Your task to perform on an android device: Turn off the flashlight Image 0: 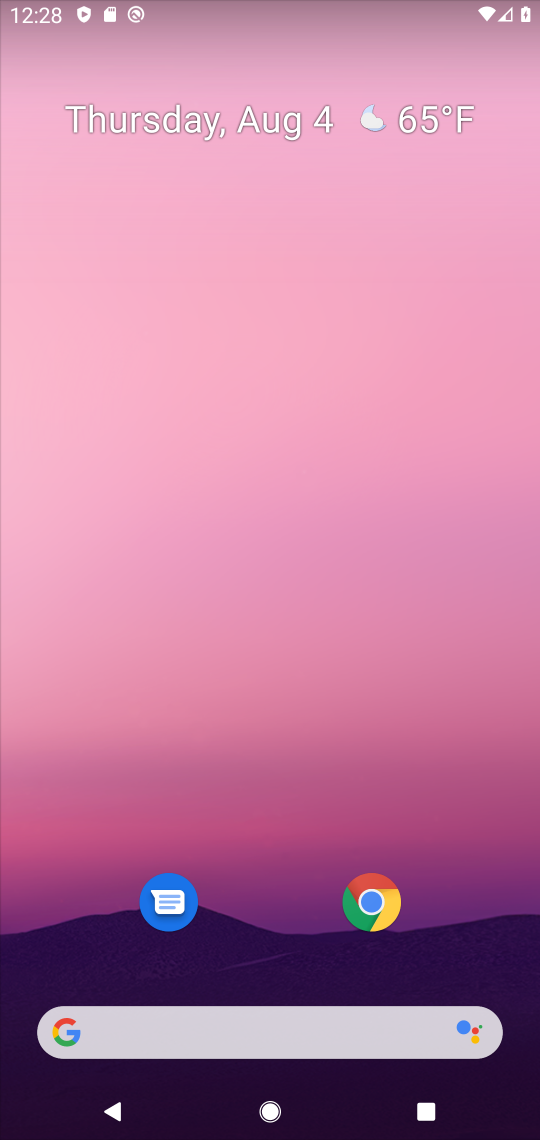
Step 0: drag from (292, 13) to (277, 871)
Your task to perform on an android device: Turn off the flashlight Image 1: 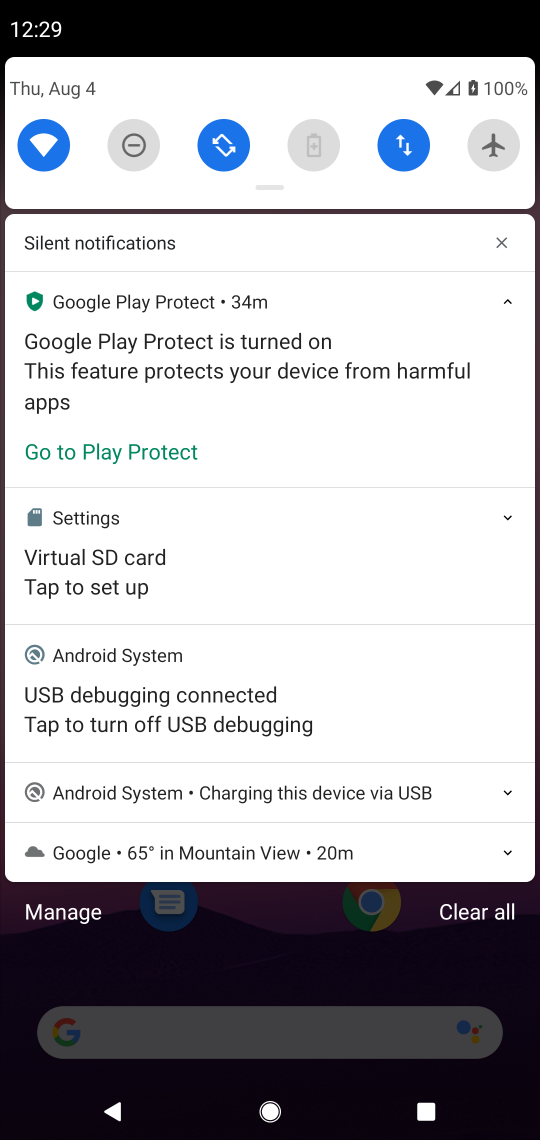
Step 1: drag from (267, 189) to (283, 634)
Your task to perform on an android device: Turn off the flashlight Image 2: 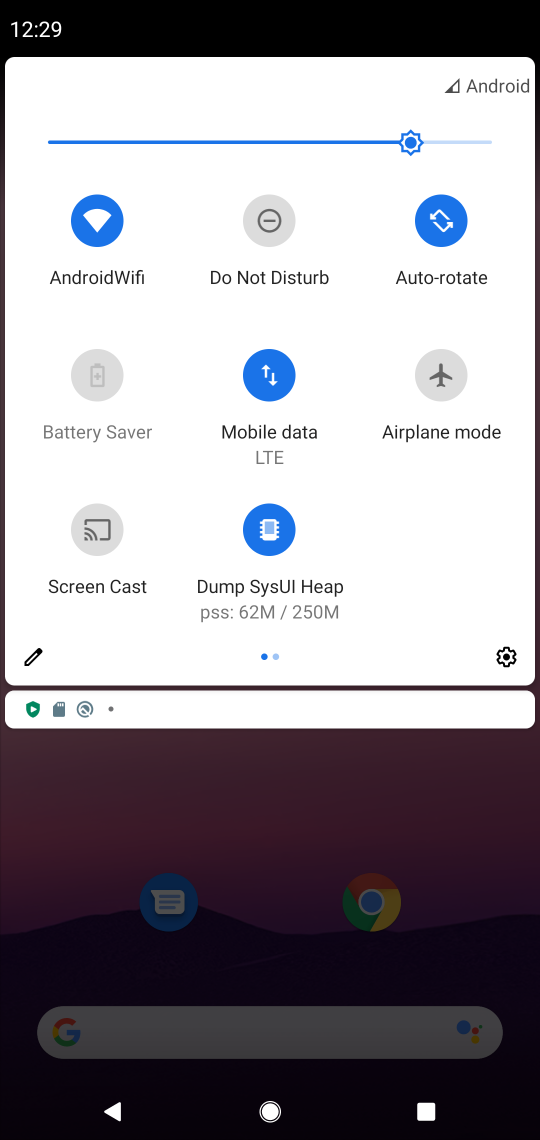
Step 2: click (26, 656)
Your task to perform on an android device: Turn off the flashlight Image 3: 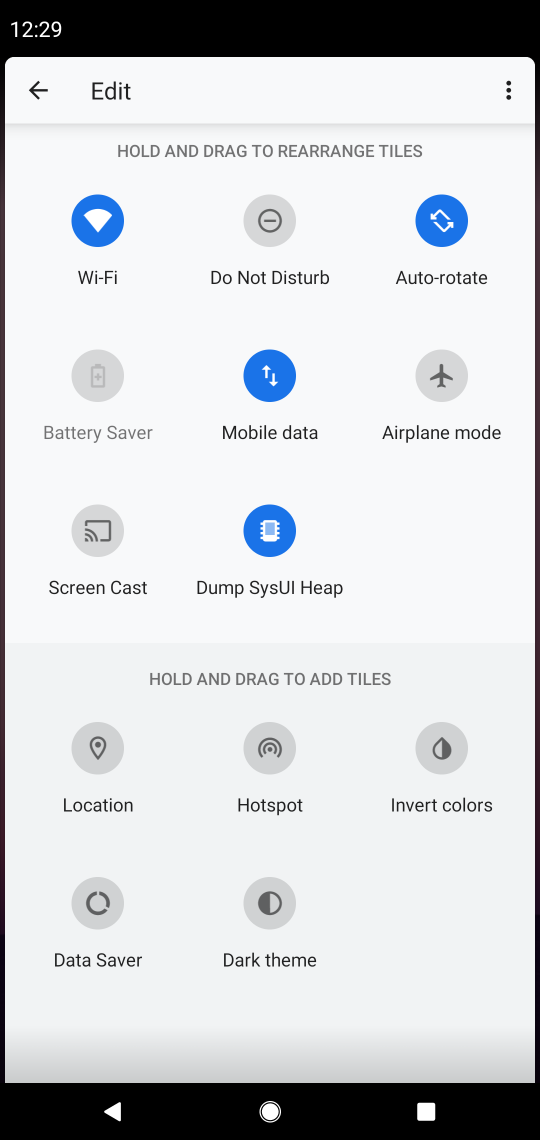
Step 3: task complete